Your task to perform on an android device: Do I have any events this weekend? Image 0: 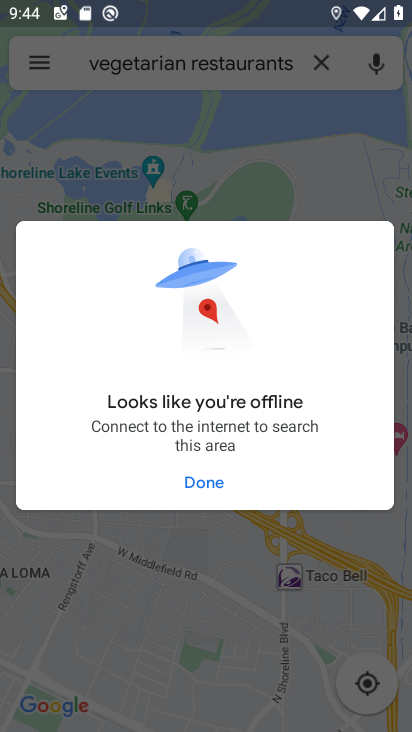
Step 0: press home button
Your task to perform on an android device: Do I have any events this weekend? Image 1: 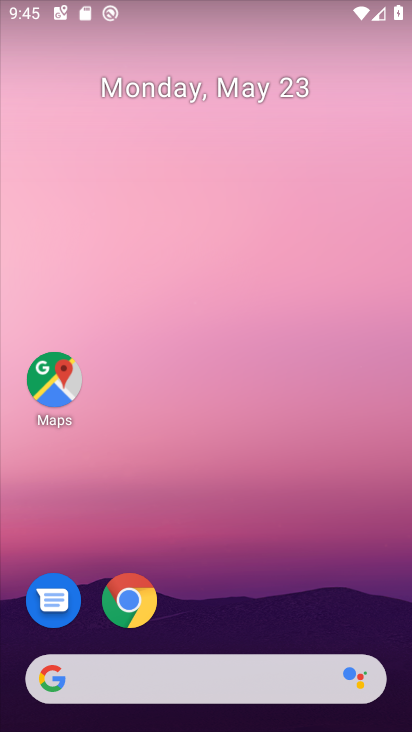
Step 1: drag from (228, 714) to (191, 13)
Your task to perform on an android device: Do I have any events this weekend? Image 2: 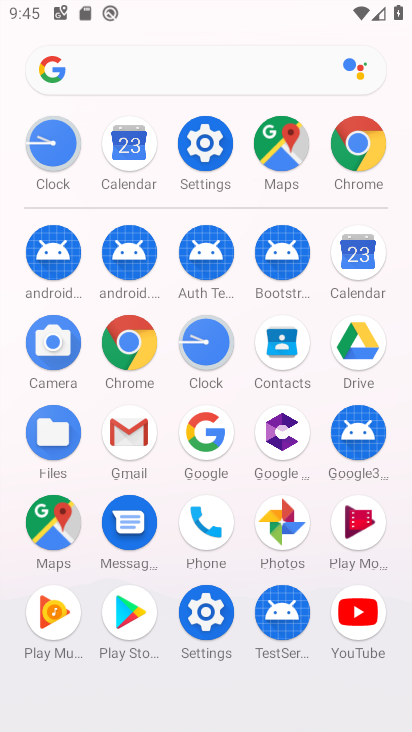
Step 2: click (356, 251)
Your task to perform on an android device: Do I have any events this weekend? Image 3: 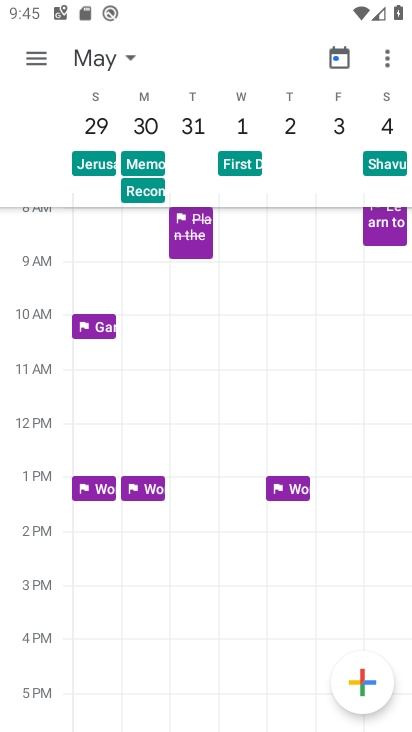
Step 3: click (389, 111)
Your task to perform on an android device: Do I have any events this weekend? Image 4: 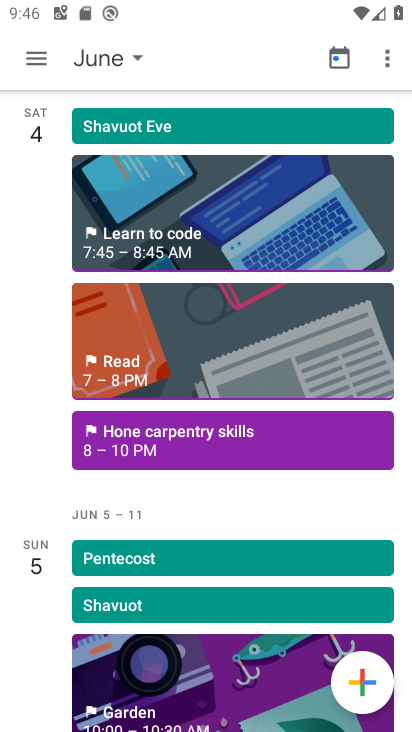
Step 4: task complete